Your task to perform on an android device: turn on airplane mode Image 0: 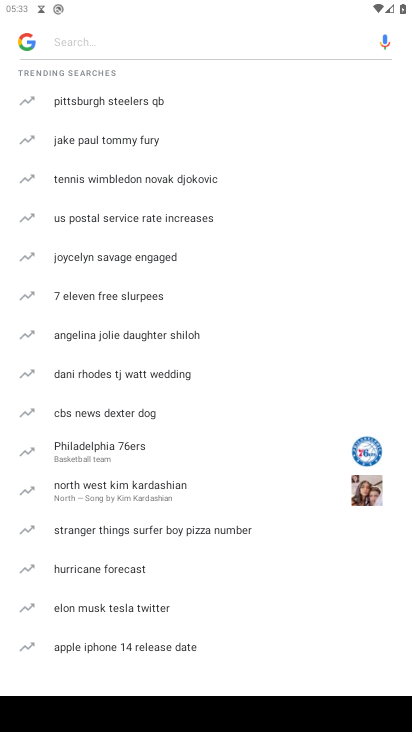
Step 0: press home button
Your task to perform on an android device: turn on airplane mode Image 1: 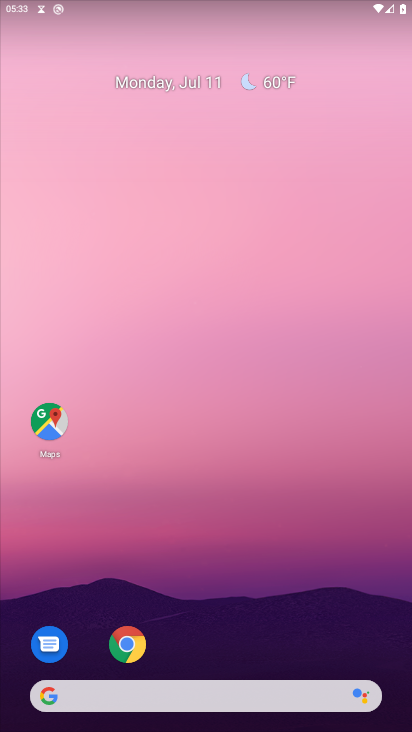
Step 1: drag from (253, 683) to (280, 370)
Your task to perform on an android device: turn on airplane mode Image 2: 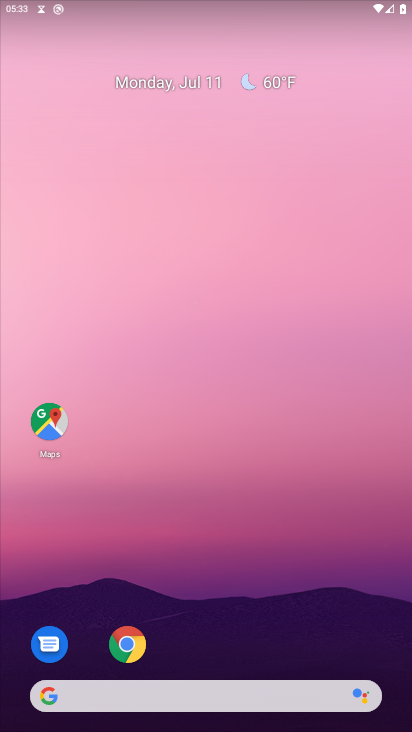
Step 2: drag from (247, 663) to (274, 286)
Your task to perform on an android device: turn on airplane mode Image 3: 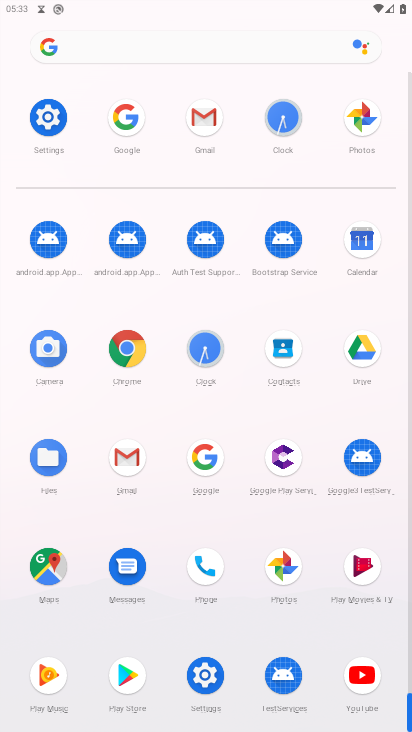
Step 3: click (201, 679)
Your task to perform on an android device: turn on airplane mode Image 4: 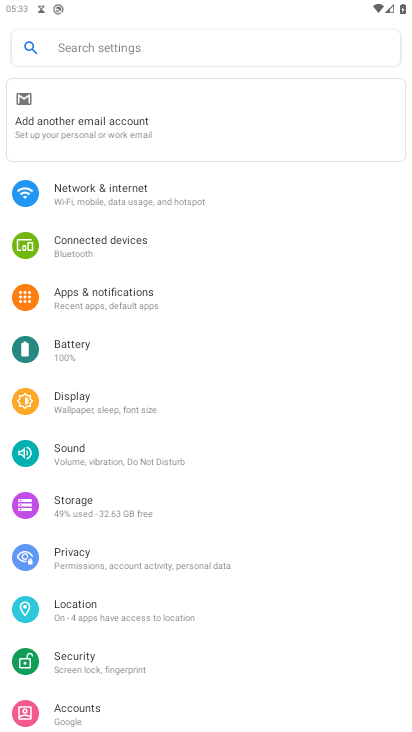
Step 4: click (132, 193)
Your task to perform on an android device: turn on airplane mode Image 5: 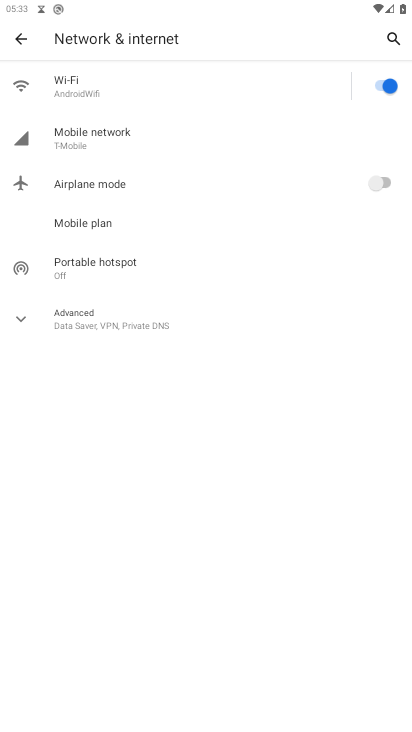
Step 5: click (383, 181)
Your task to perform on an android device: turn on airplane mode Image 6: 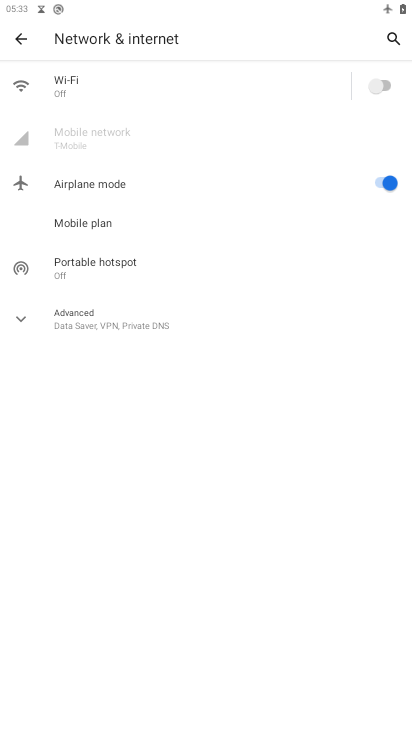
Step 6: task complete